Your task to perform on an android device: Clear the shopping cart on walmart. Add razer blackwidow to the cart on walmart, then select checkout. Image 0: 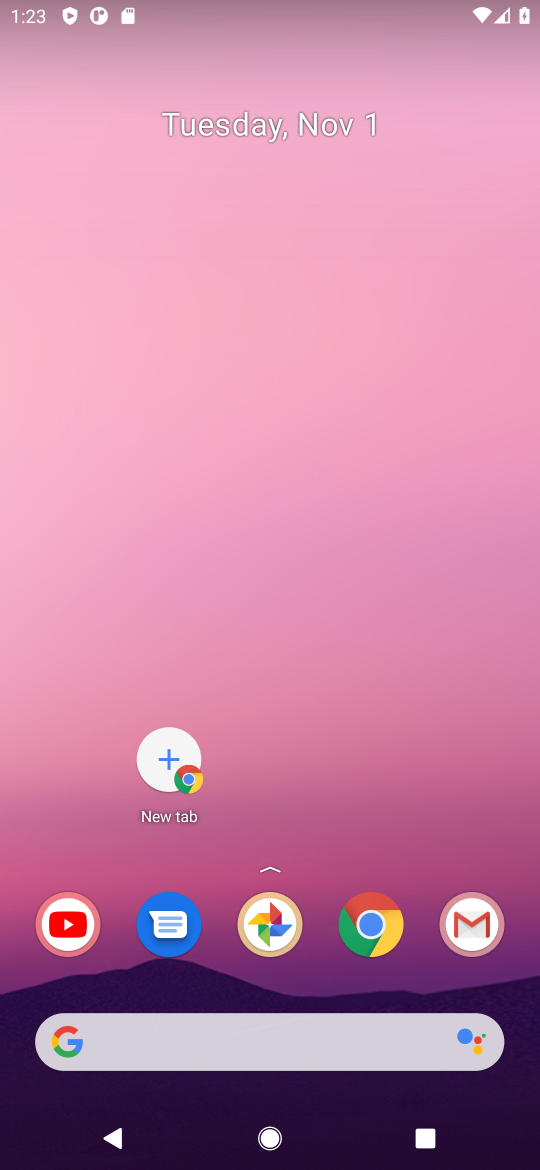
Step 0: click (366, 933)
Your task to perform on an android device: Clear the shopping cart on walmart. Add razer blackwidow to the cart on walmart, then select checkout. Image 1: 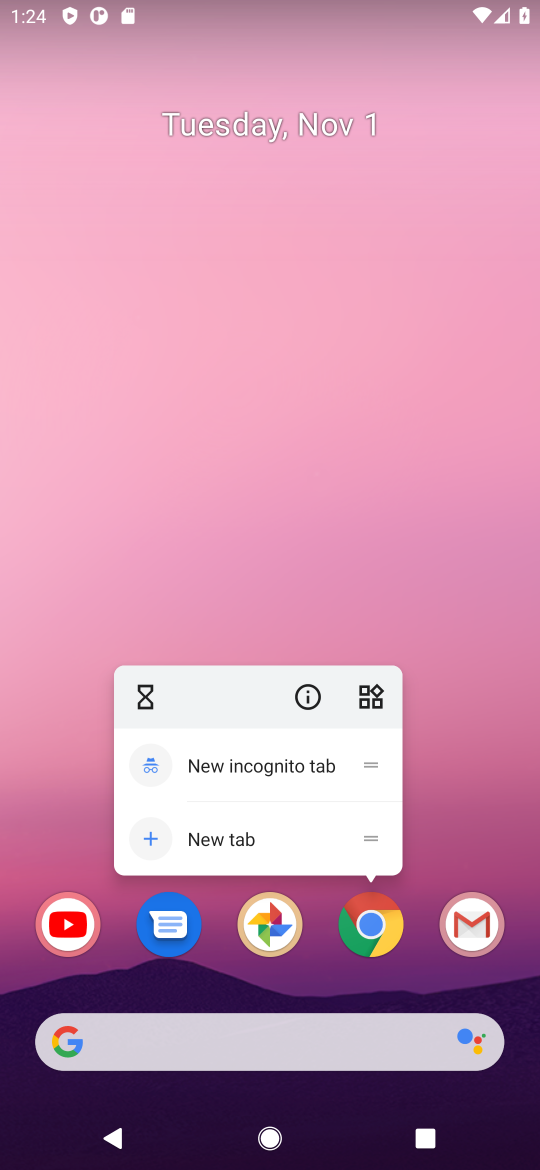
Step 1: click (377, 927)
Your task to perform on an android device: Clear the shopping cart on walmart. Add razer blackwidow to the cart on walmart, then select checkout. Image 2: 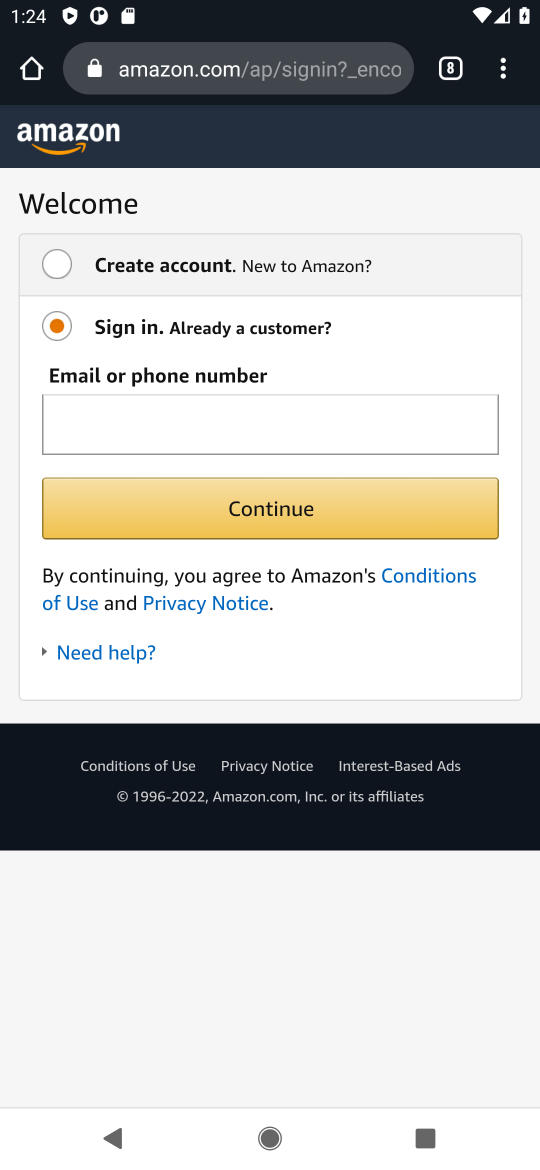
Step 2: click (191, 77)
Your task to perform on an android device: Clear the shopping cart on walmart. Add razer blackwidow to the cart on walmart, then select checkout. Image 3: 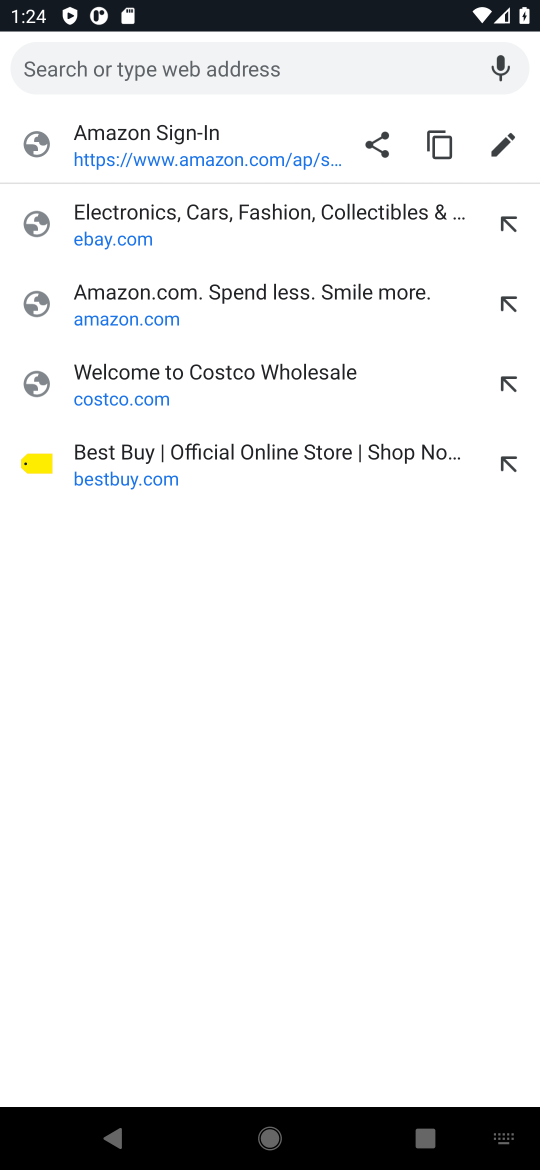
Step 3: type "walmart"
Your task to perform on an android device: Clear the shopping cart on walmart. Add razer blackwidow to the cart on walmart, then select checkout. Image 4: 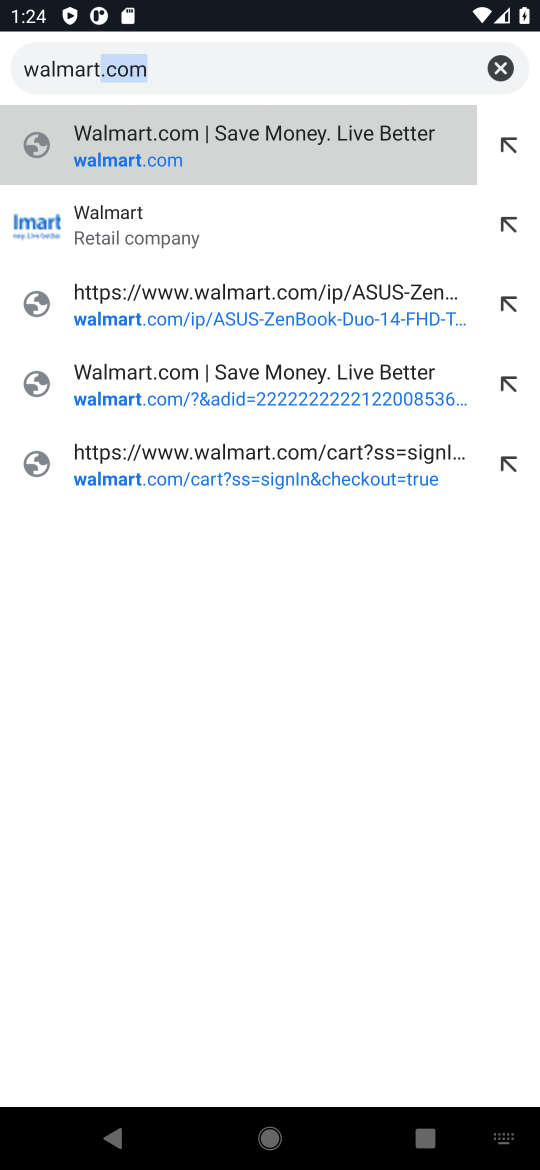
Step 4: type ""
Your task to perform on an android device: Clear the shopping cart on walmart. Add razer blackwidow to the cart on walmart, then select checkout. Image 5: 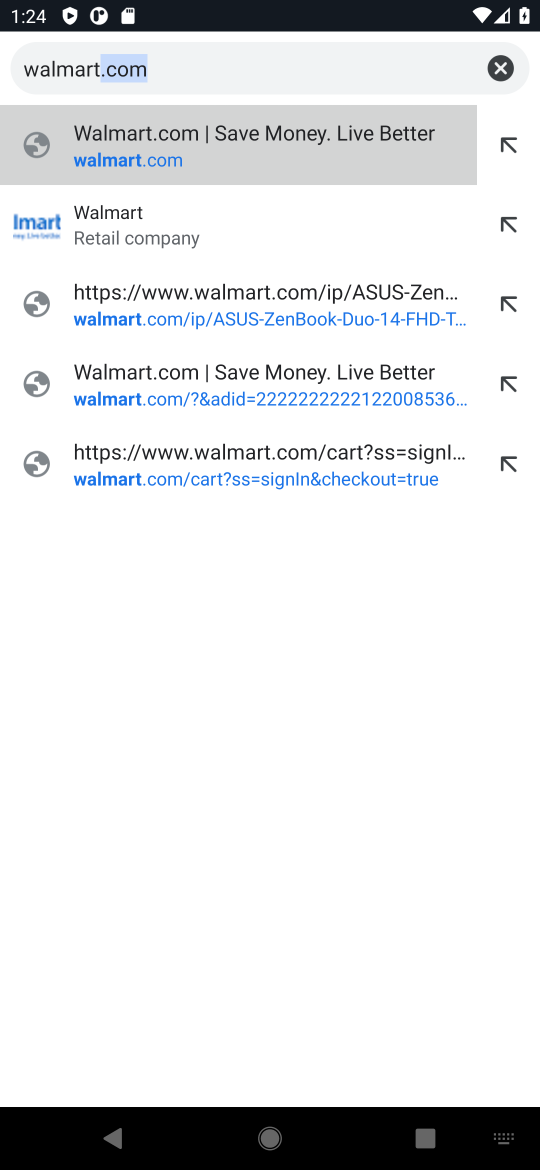
Step 5: click (79, 237)
Your task to perform on an android device: Clear the shopping cart on walmart. Add razer blackwidow to the cart on walmart, then select checkout. Image 6: 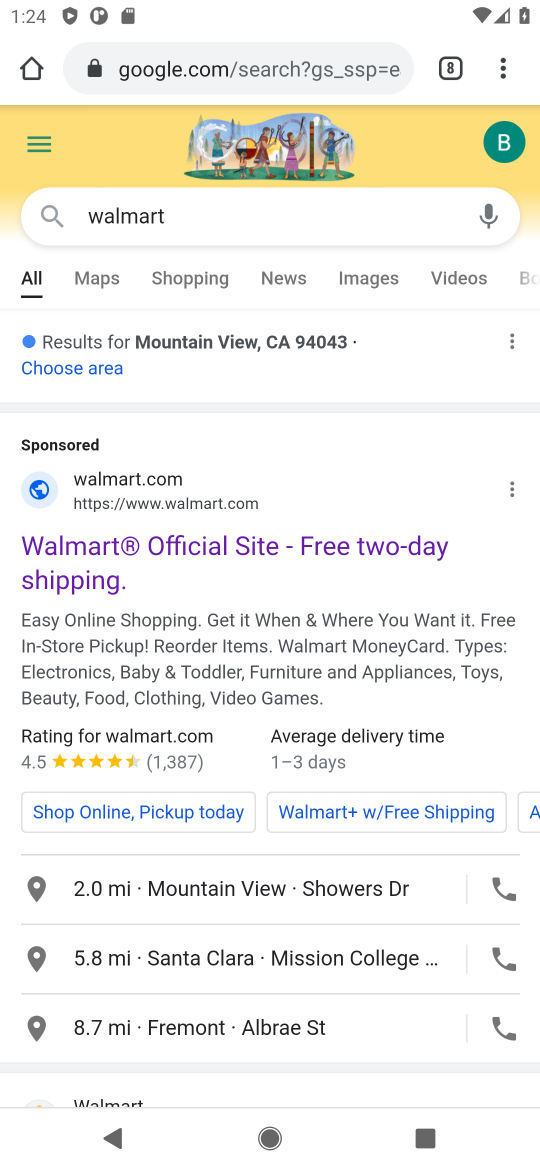
Step 6: drag from (248, 824) to (260, 451)
Your task to perform on an android device: Clear the shopping cart on walmart. Add razer blackwidow to the cart on walmart, then select checkout. Image 7: 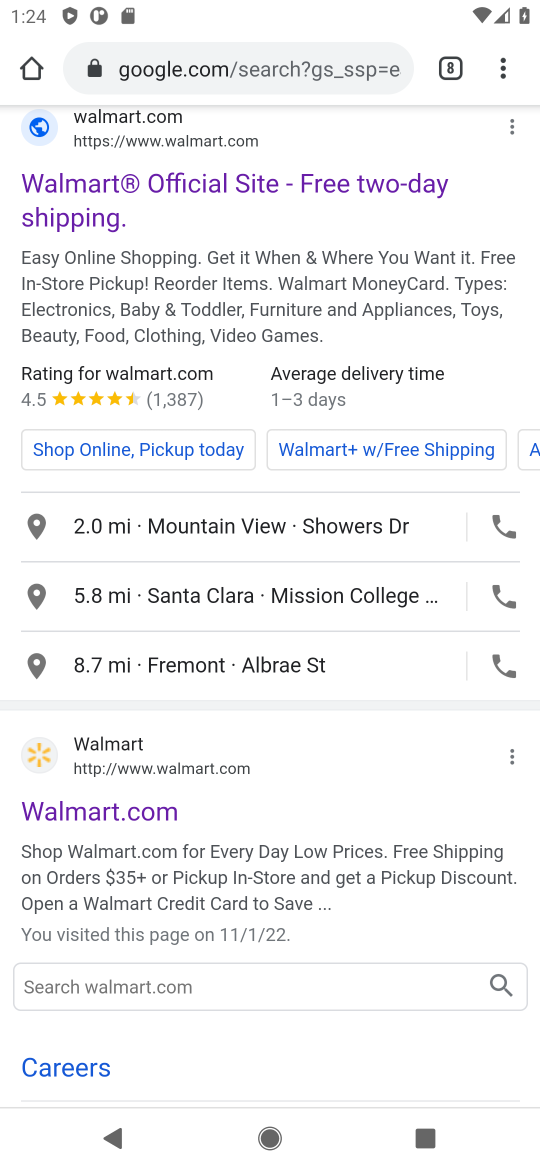
Step 7: click (90, 807)
Your task to perform on an android device: Clear the shopping cart on walmart. Add razer blackwidow to the cart on walmart, then select checkout. Image 8: 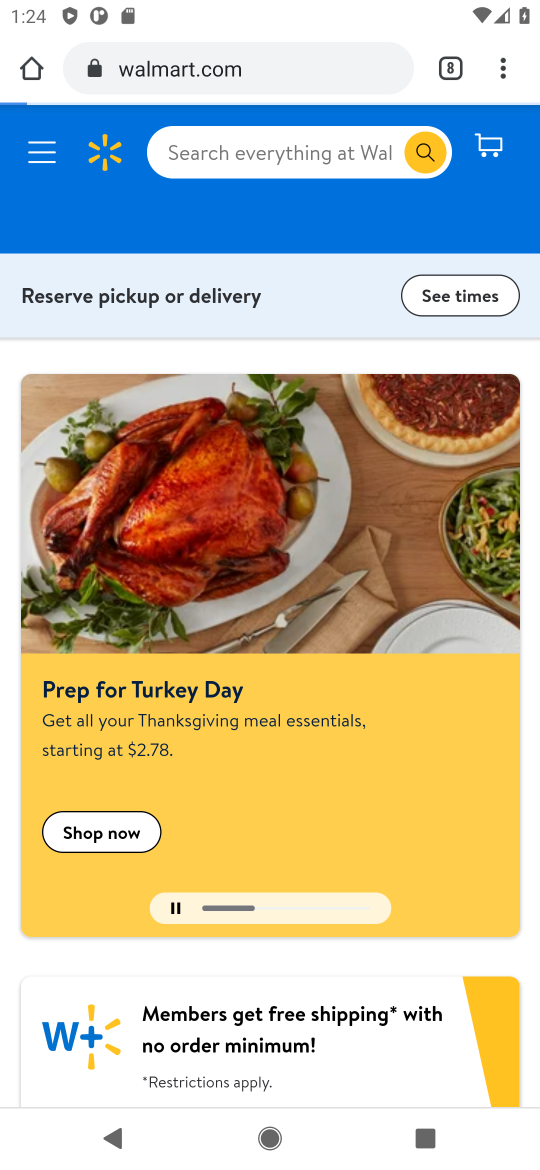
Step 8: click (278, 167)
Your task to perform on an android device: Clear the shopping cart on walmart. Add razer blackwidow to the cart on walmart, then select checkout. Image 9: 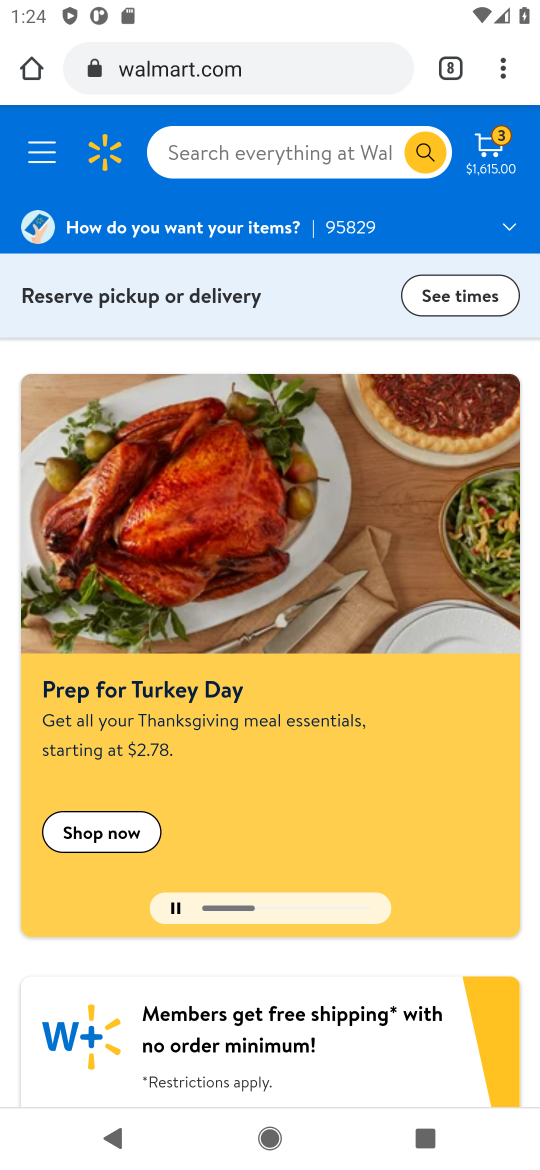
Step 9: click (189, 138)
Your task to perform on an android device: Clear the shopping cart on walmart. Add razer blackwidow to the cart on walmart, then select checkout. Image 10: 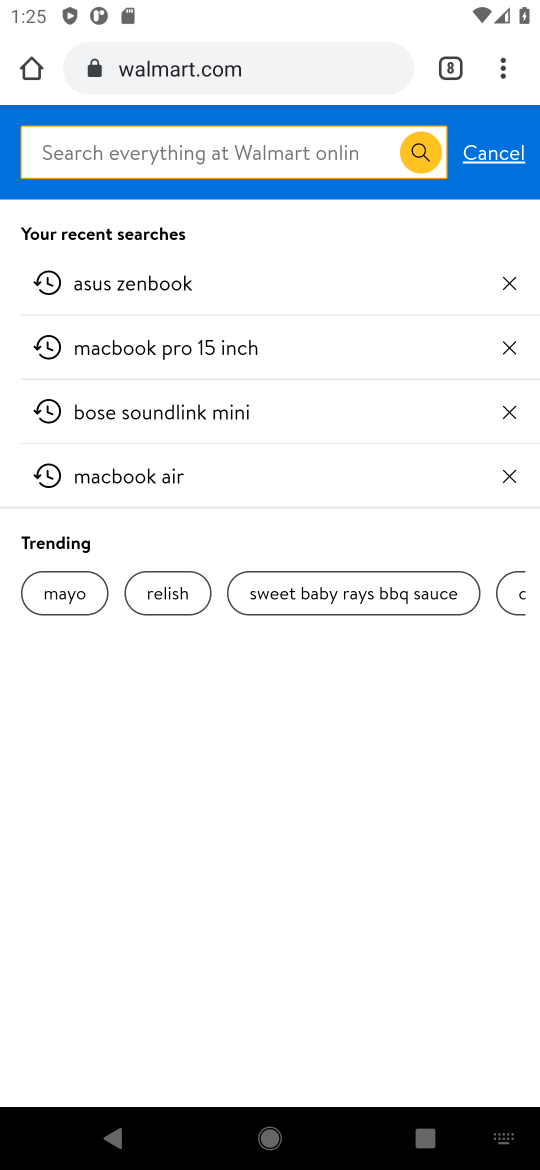
Step 10: type "razer blackwidow"
Your task to perform on an android device: Clear the shopping cart on walmart. Add razer blackwidow to the cart on walmart, then select checkout. Image 11: 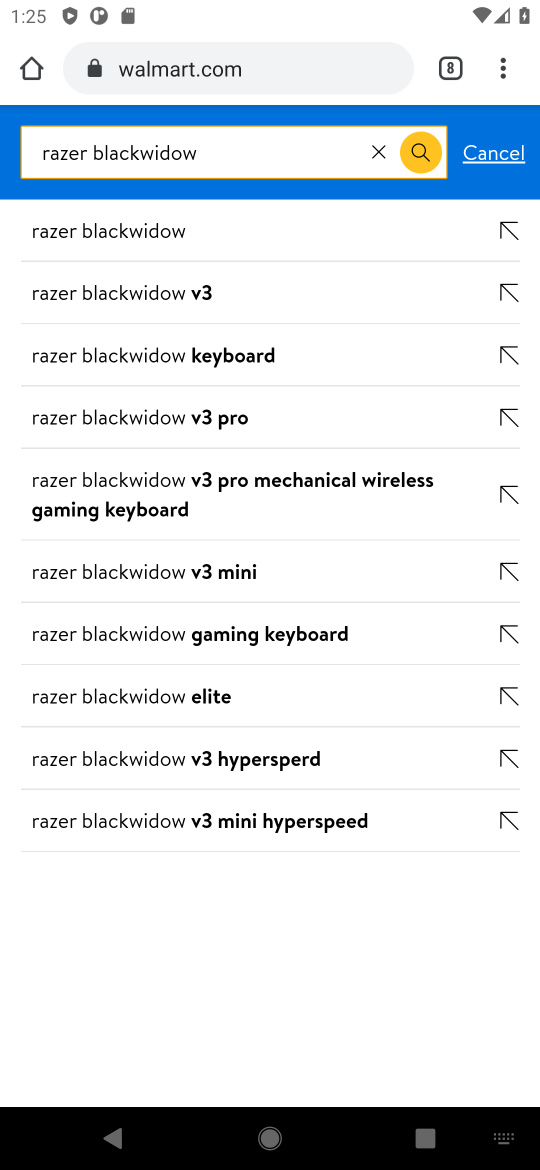
Step 11: click (161, 221)
Your task to perform on an android device: Clear the shopping cart on walmart. Add razer blackwidow to the cart on walmart, then select checkout. Image 12: 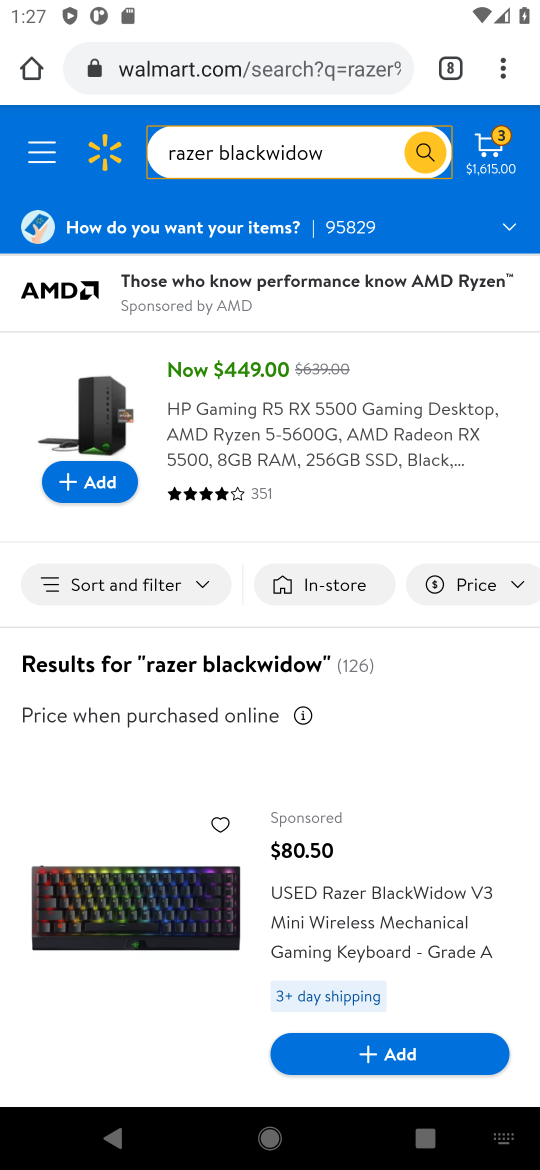
Step 12: click (107, 910)
Your task to perform on an android device: Clear the shopping cart on walmart. Add razer blackwidow to the cart on walmart, then select checkout. Image 13: 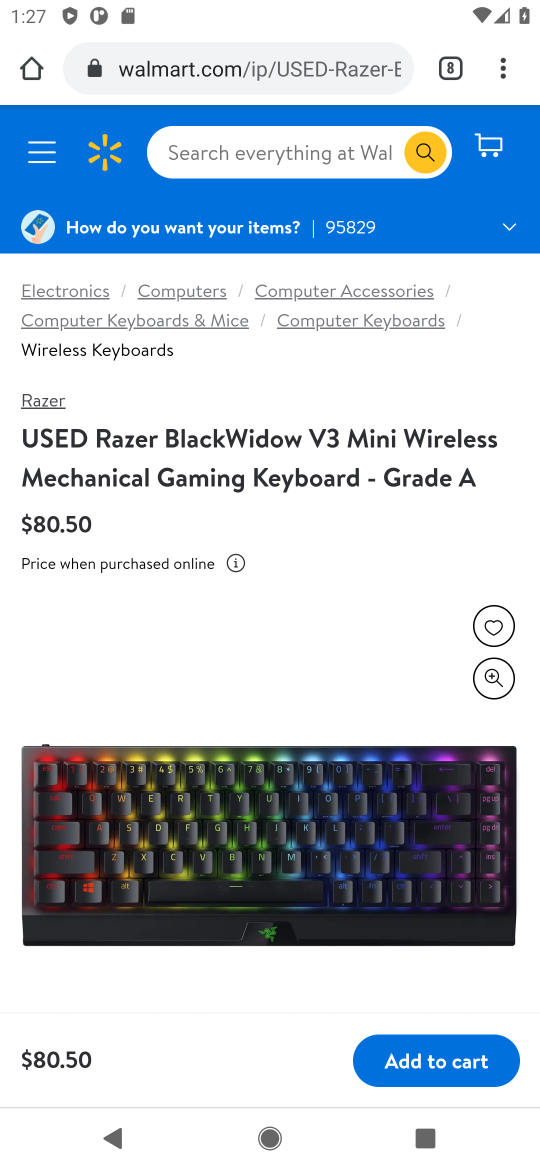
Step 13: click (422, 1064)
Your task to perform on an android device: Clear the shopping cart on walmart. Add razer blackwidow to the cart on walmart, then select checkout. Image 14: 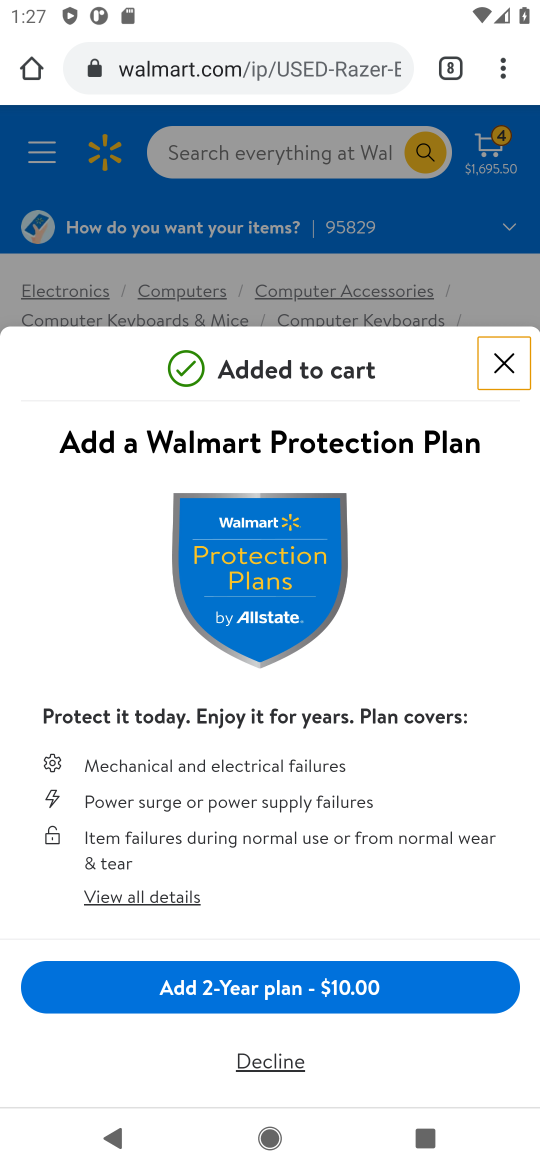
Step 14: click (513, 363)
Your task to perform on an android device: Clear the shopping cart on walmart. Add razer blackwidow to the cart on walmart, then select checkout. Image 15: 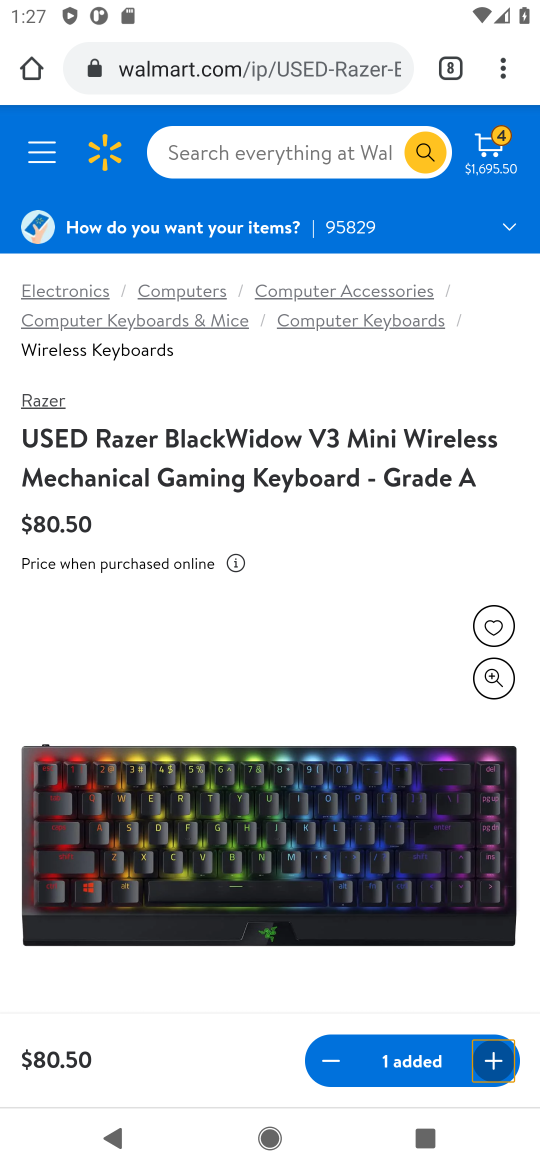
Step 15: click (491, 164)
Your task to perform on an android device: Clear the shopping cart on walmart. Add razer blackwidow to the cart on walmart, then select checkout. Image 16: 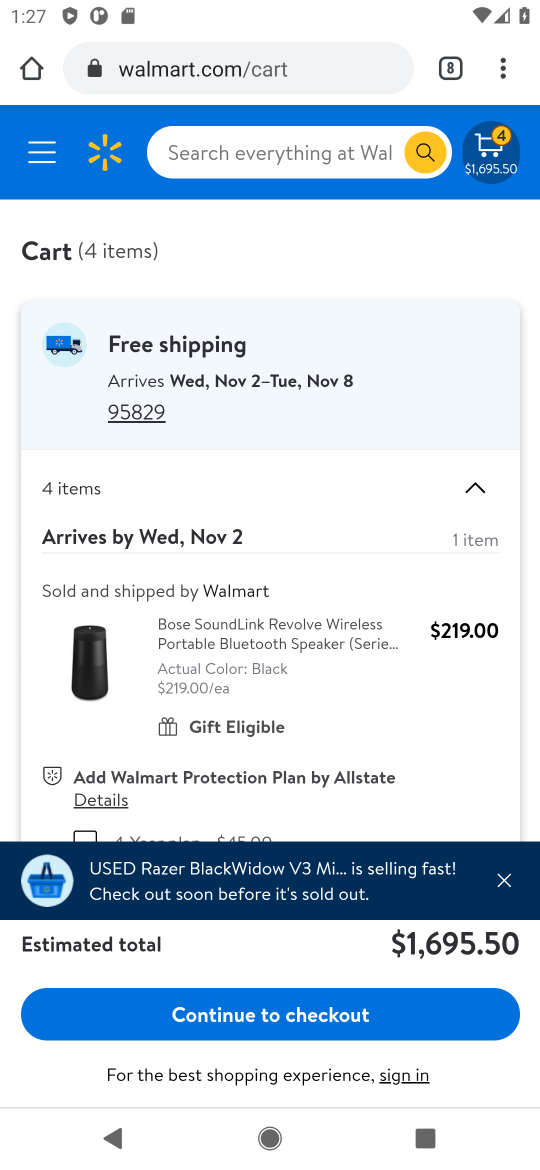
Step 16: click (275, 1019)
Your task to perform on an android device: Clear the shopping cart on walmart. Add razer blackwidow to the cart on walmart, then select checkout. Image 17: 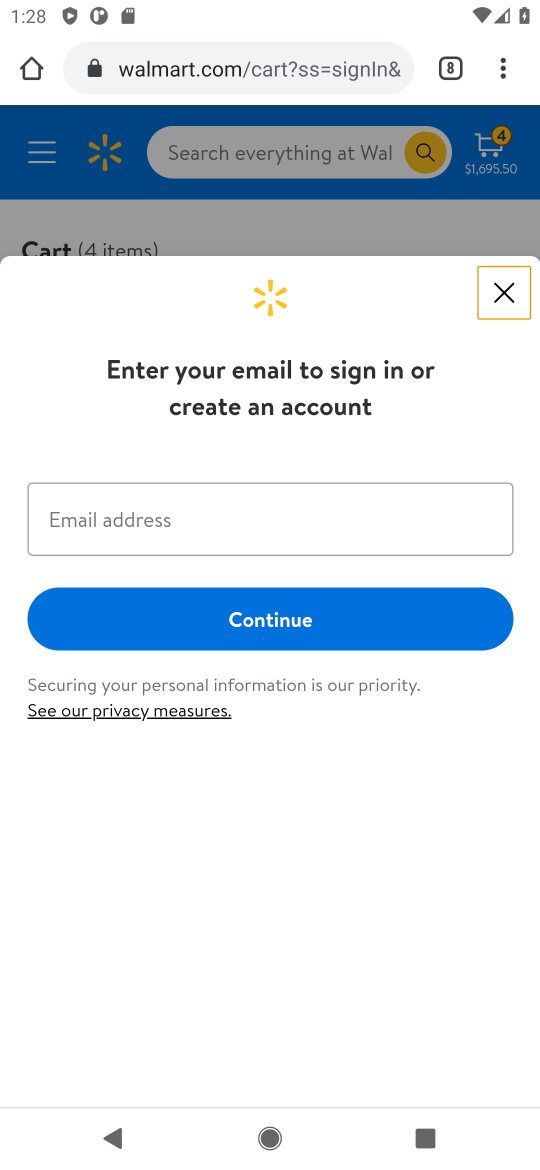
Step 17: task complete